Your task to perform on an android device: toggle airplane mode Image 0: 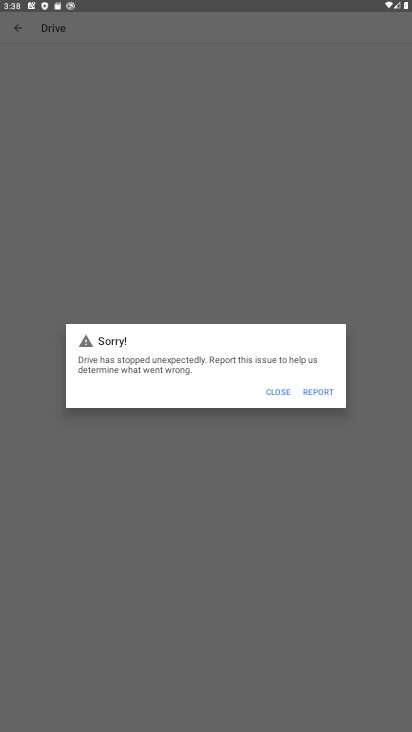
Step 0: press home button
Your task to perform on an android device: toggle airplane mode Image 1: 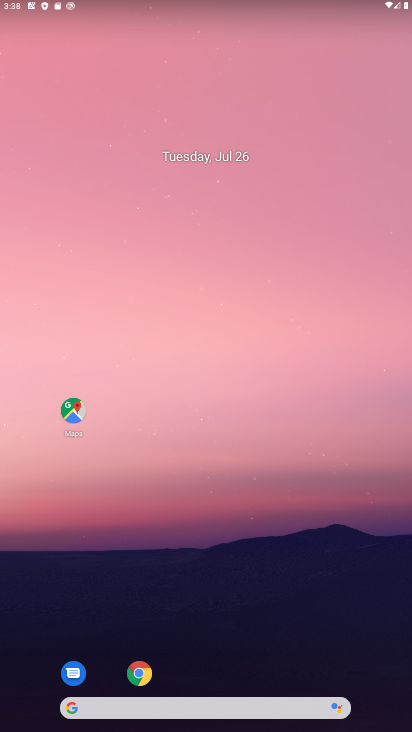
Step 1: drag from (232, 690) to (266, 48)
Your task to perform on an android device: toggle airplane mode Image 2: 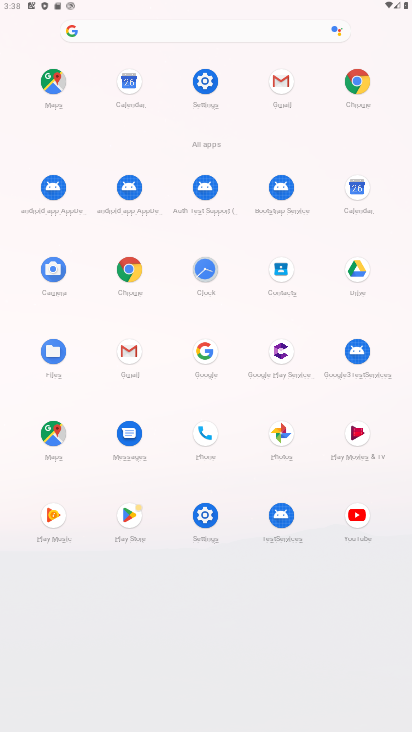
Step 2: click (207, 84)
Your task to perform on an android device: toggle airplane mode Image 3: 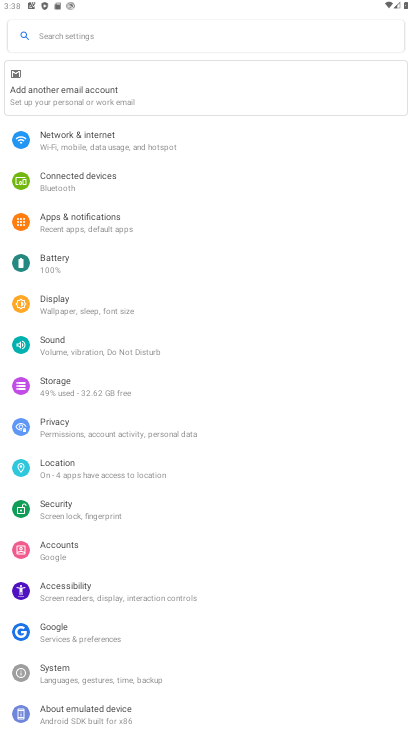
Step 3: click (68, 154)
Your task to perform on an android device: toggle airplane mode Image 4: 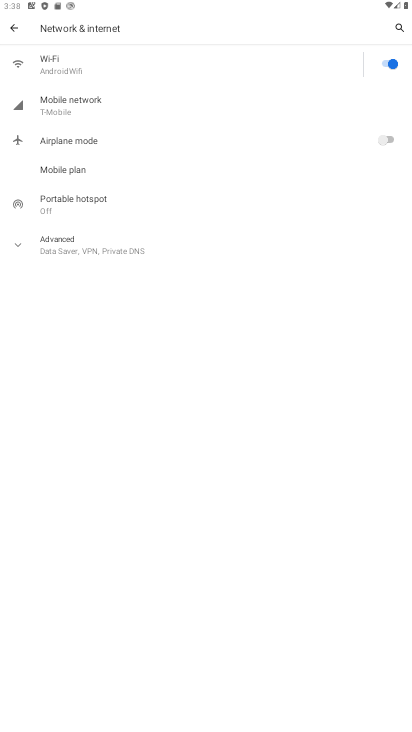
Step 4: click (387, 141)
Your task to perform on an android device: toggle airplane mode Image 5: 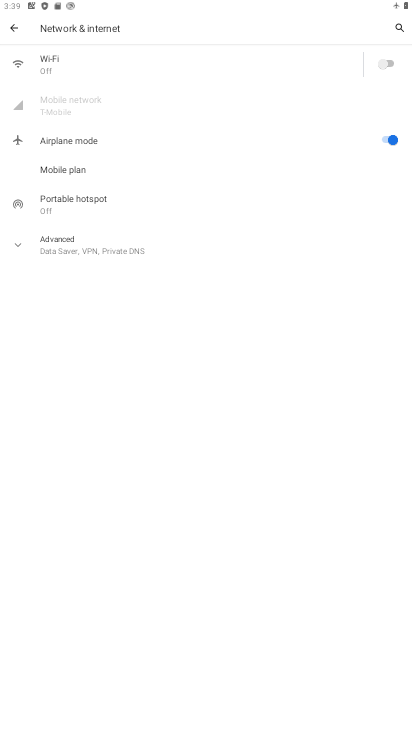
Step 5: task complete